Your task to perform on an android device: search for starred emails in the gmail app Image 0: 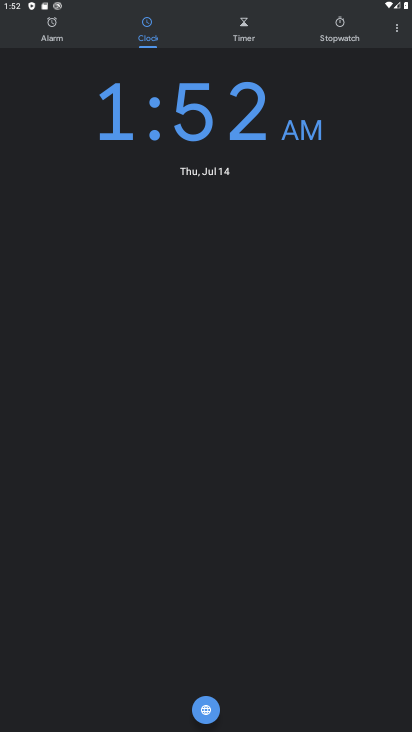
Step 0: press home button
Your task to perform on an android device: search for starred emails in the gmail app Image 1: 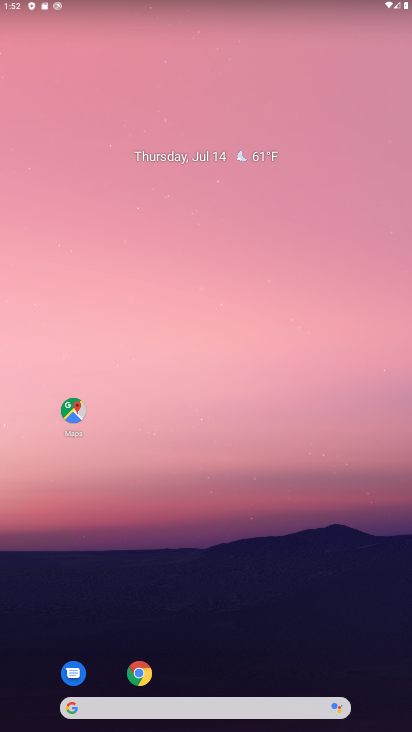
Step 1: drag from (183, 675) to (224, 145)
Your task to perform on an android device: search for starred emails in the gmail app Image 2: 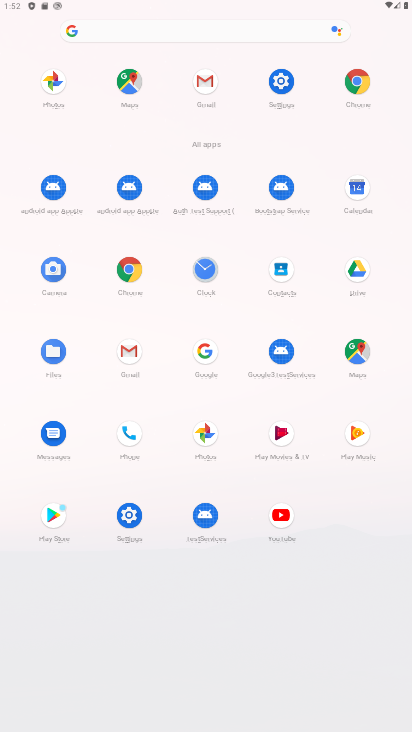
Step 2: click (201, 100)
Your task to perform on an android device: search for starred emails in the gmail app Image 3: 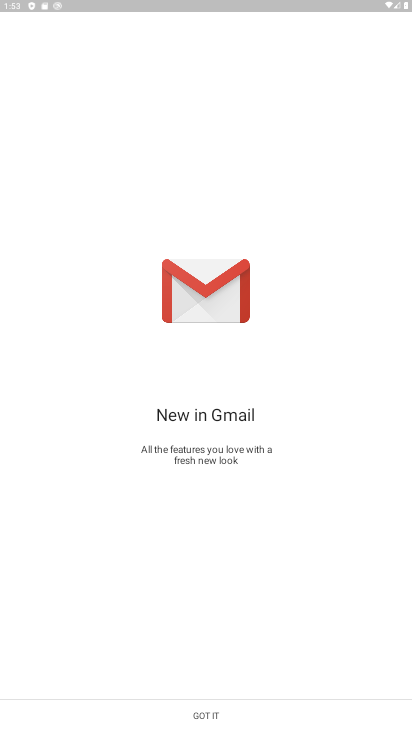
Step 3: click (199, 726)
Your task to perform on an android device: search for starred emails in the gmail app Image 4: 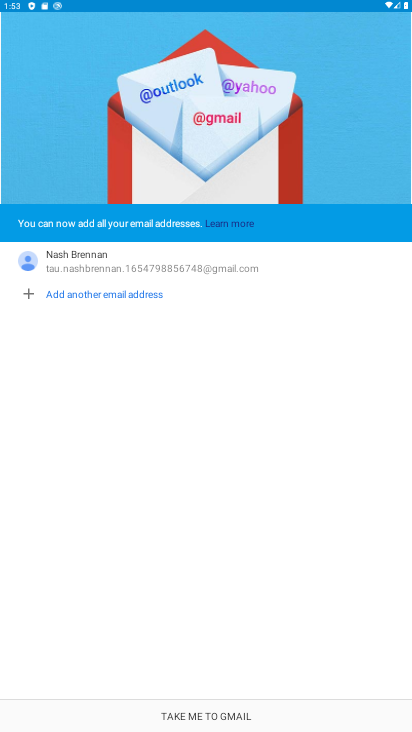
Step 4: click (214, 722)
Your task to perform on an android device: search for starred emails in the gmail app Image 5: 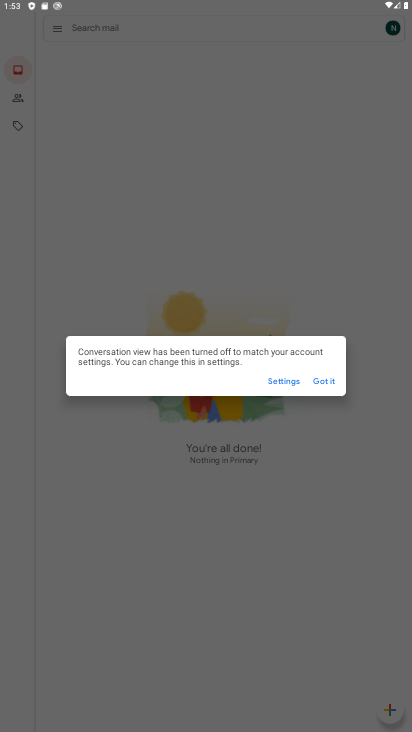
Step 5: click (325, 379)
Your task to perform on an android device: search for starred emails in the gmail app Image 6: 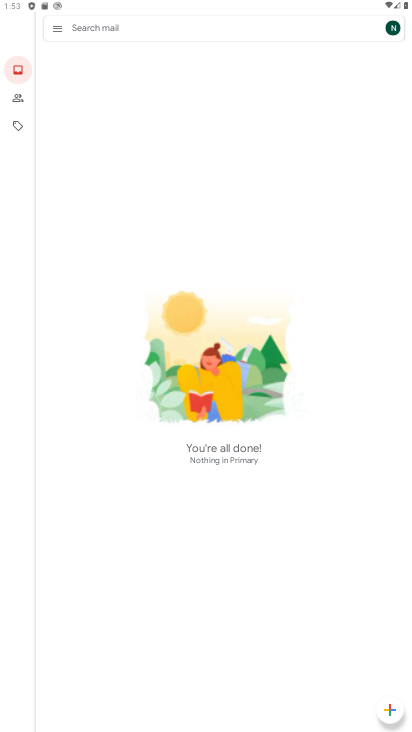
Step 6: click (61, 39)
Your task to perform on an android device: search for starred emails in the gmail app Image 7: 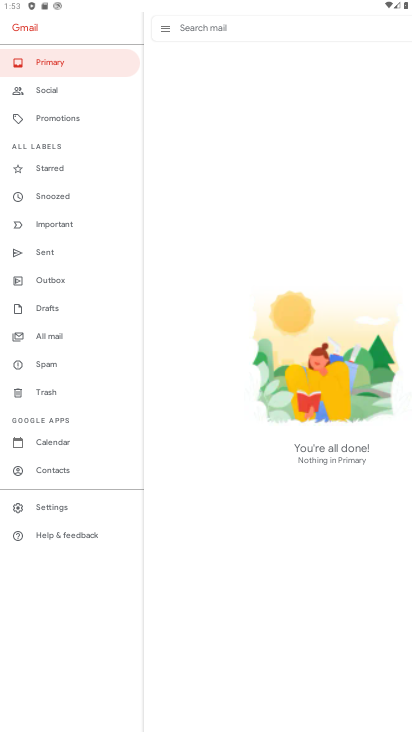
Step 7: click (51, 168)
Your task to perform on an android device: search for starred emails in the gmail app Image 8: 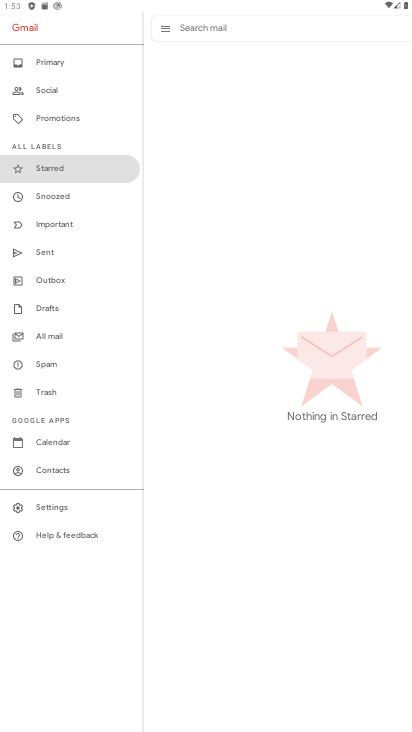
Step 8: task complete